Your task to perform on an android device: Turn on the flashlight Image 0: 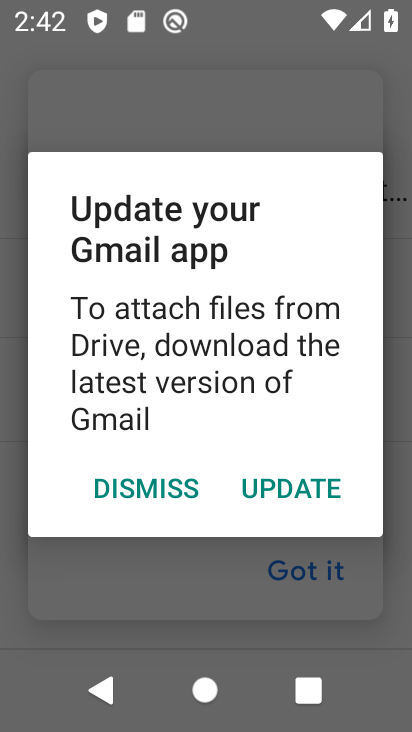
Step 0: press home button
Your task to perform on an android device: Turn on the flashlight Image 1: 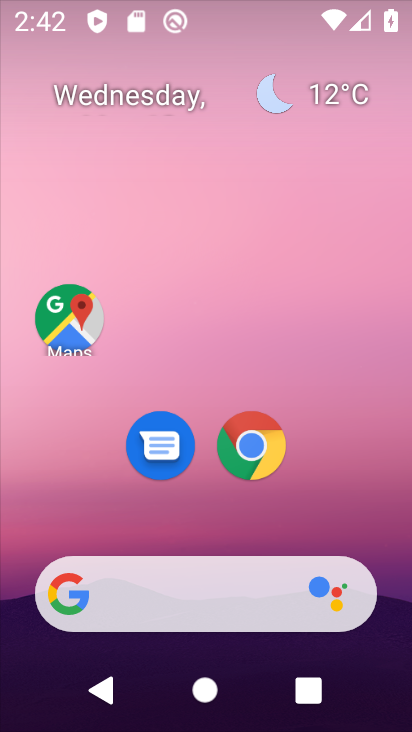
Step 1: drag from (354, 13) to (369, 461)
Your task to perform on an android device: Turn on the flashlight Image 2: 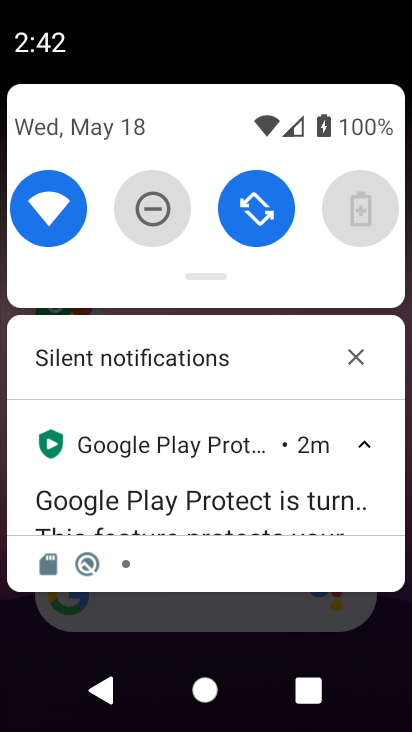
Step 2: drag from (284, 250) to (307, 590)
Your task to perform on an android device: Turn on the flashlight Image 3: 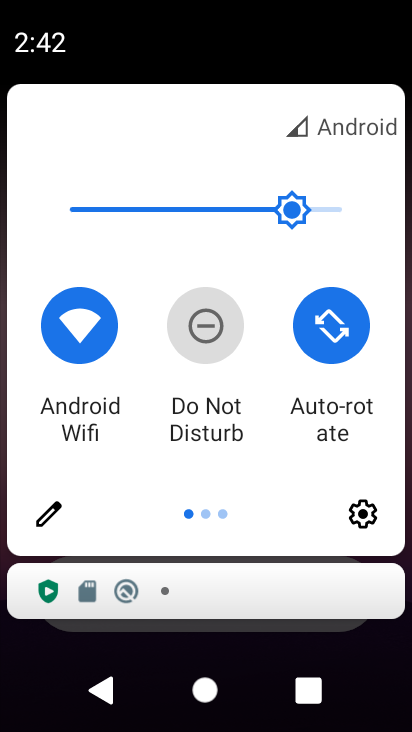
Step 3: click (56, 527)
Your task to perform on an android device: Turn on the flashlight Image 4: 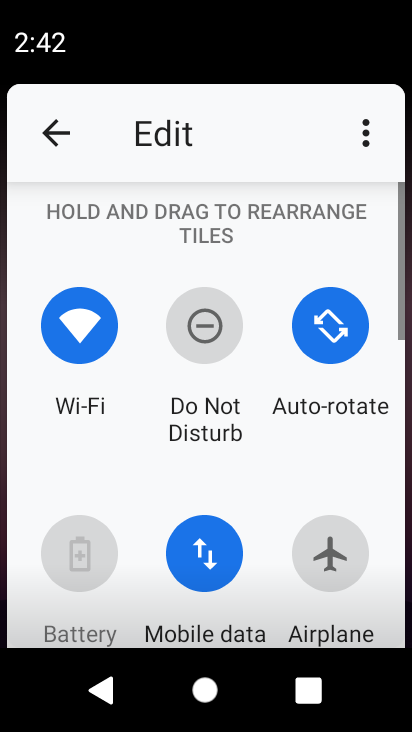
Step 4: task complete